Your task to perform on an android device: Open Android settings Image 0: 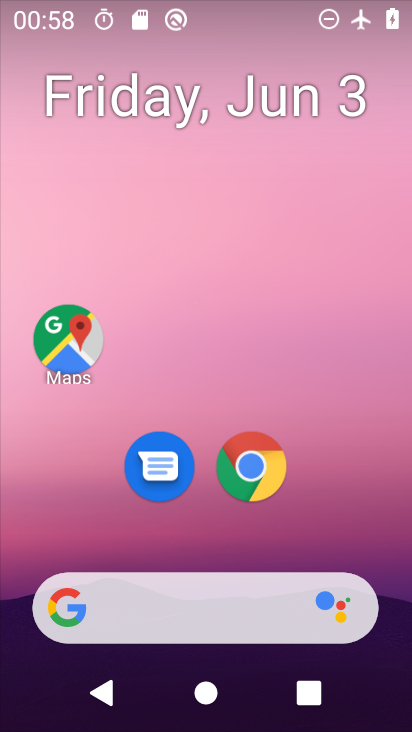
Step 0: drag from (208, 548) to (205, 93)
Your task to perform on an android device: Open Android settings Image 1: 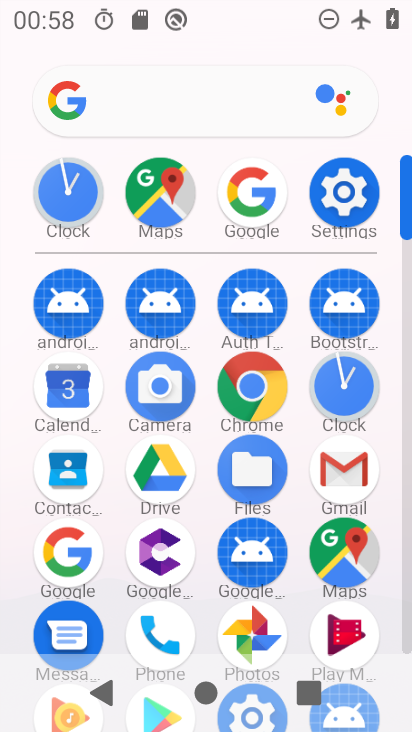
Step 1: click (334, 171)
Your task to perform on an android device: Open Android settings Image 2: 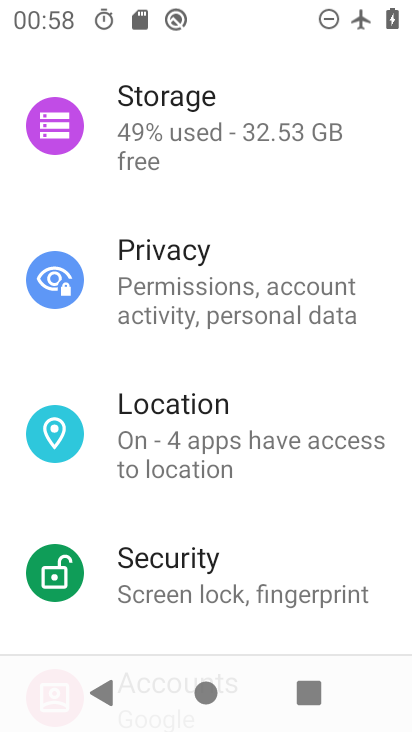
Step 2: task complete